Your task to perform on an android device: Go to sound settings Image 0: 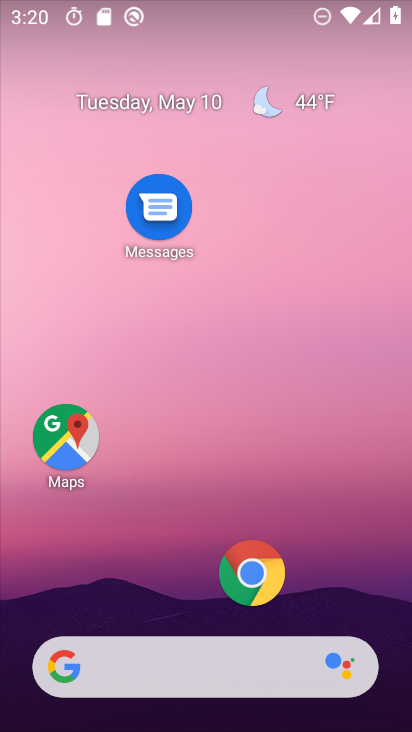
Step 0: drag from (184, 607) to (255, 117)
Your task to perform on an android device: Go to sound settings Image 1: 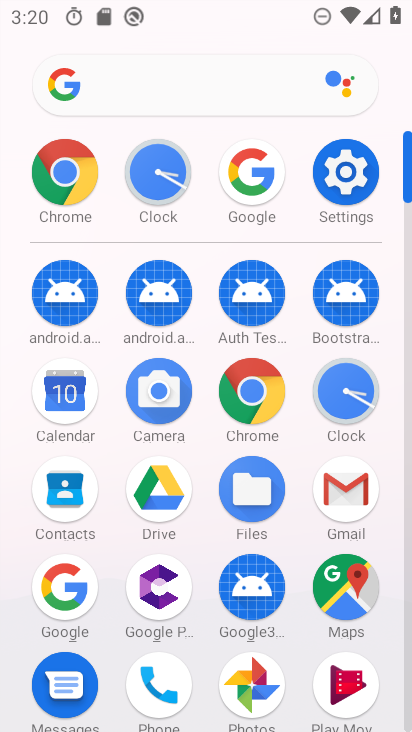
Step 1: click (329, 152)
Your task to perform on an android device: Go to sound settings Image 2: 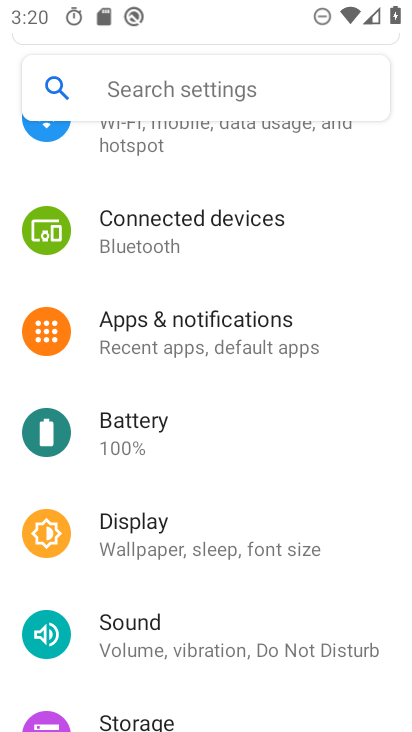
Step 2: click (186, 618)
Your task to perform on an android device: Go to sound settings Image 3: 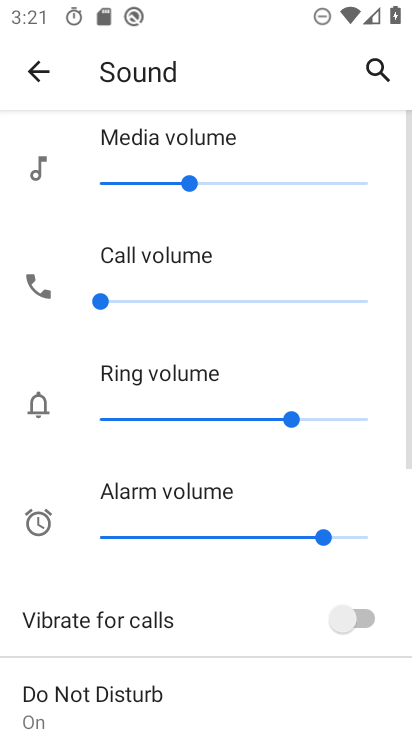
Step 3: task complete